Your task to perform on an android device: Set the phone to "Do not disturb". Image 0: 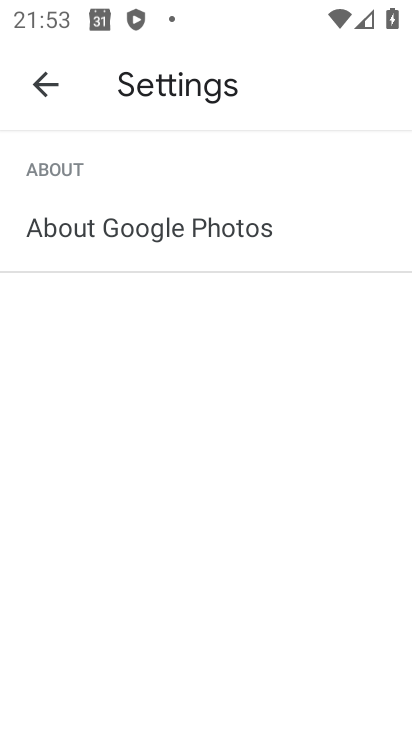
Step 0: press home button
Your task to perform on an android device: Set the phone to "Do not disturb". Image 1: 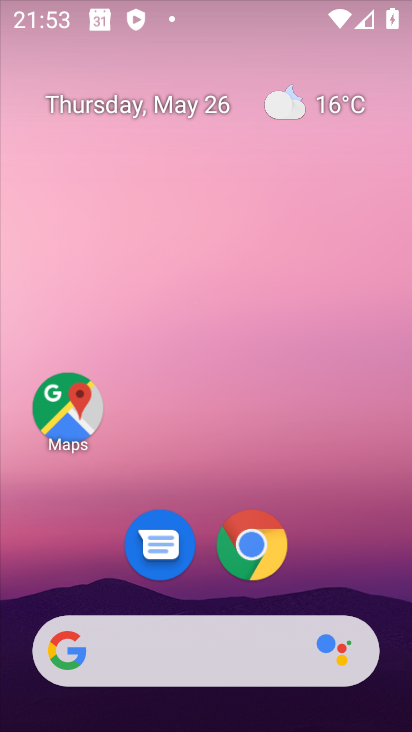
Step 1: drag from (359, 562) to (349, 60)
Your task to perform on an android device: Set the phone to "Do not disturb". Image 2: 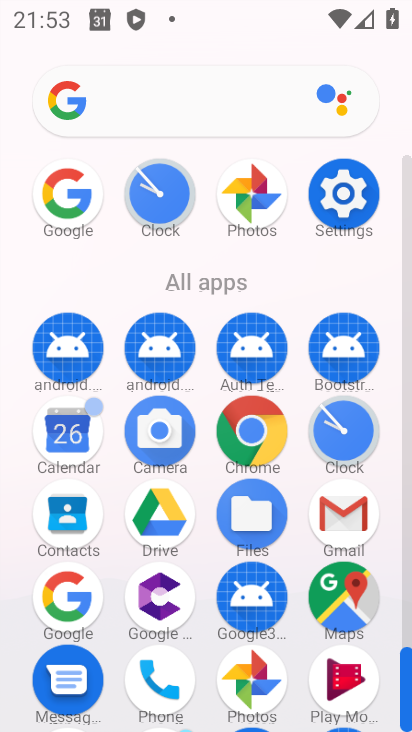
Step 2: click (346, 193)
Your task to perform on an android device: Set the phone to "Do not disturb". Image 3: 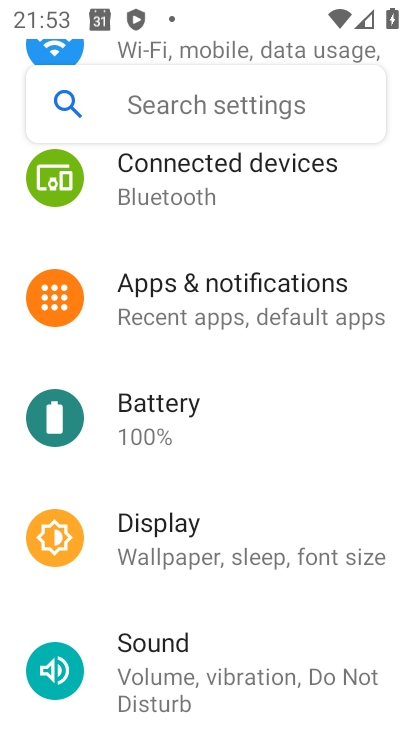
Step 3: click (243, 667)
Your task to perform on an android device: Set the phone to "Do not disturb". Image 4: 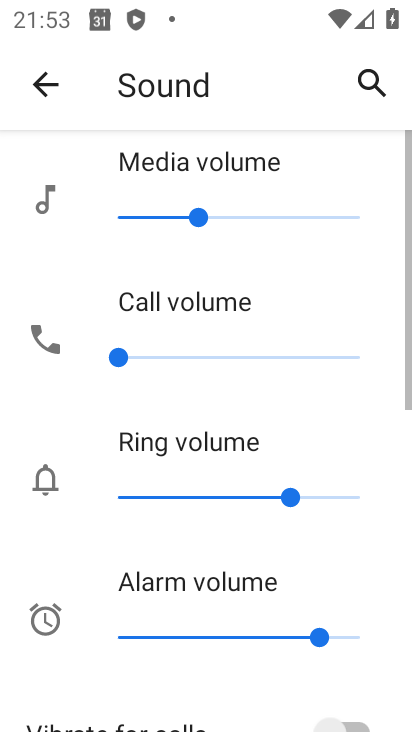
Step 4: drag from (228, 531) to (158, 3)
Your task to perform on an android device: Set the phone to "Do not disturb". Image 5: 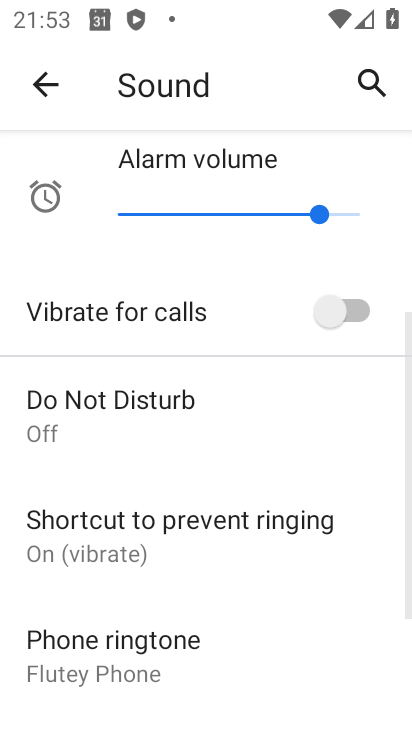
Step 5: click (78, 427)
Your task to perform on an android device: Set the phone to "Do not disturb". Image 6: 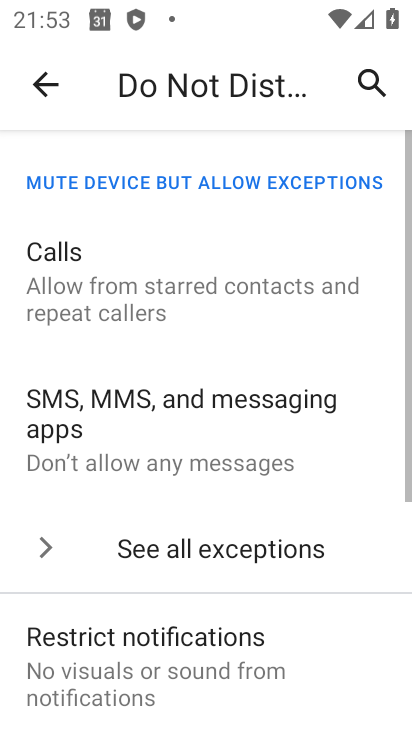
Step 6: drag from (298, 661) to (302, 97)
Your task to perform on an android device: Set the phone to "Do not disturb". Image 7: 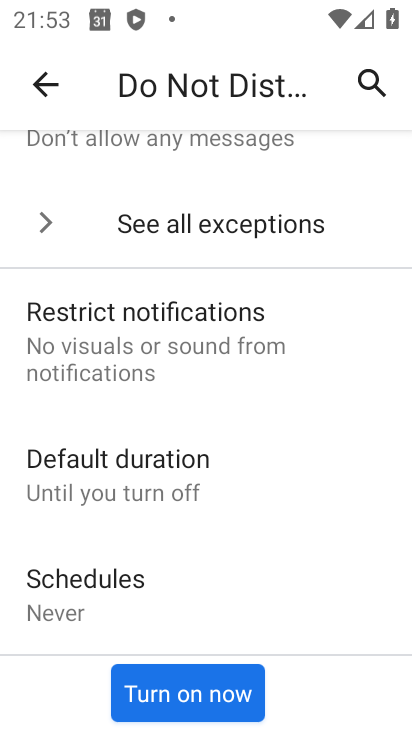
Step 7: click (173, 696)
Your task to perform on an android device: Set the phone to "Do not disturb". Image 8: 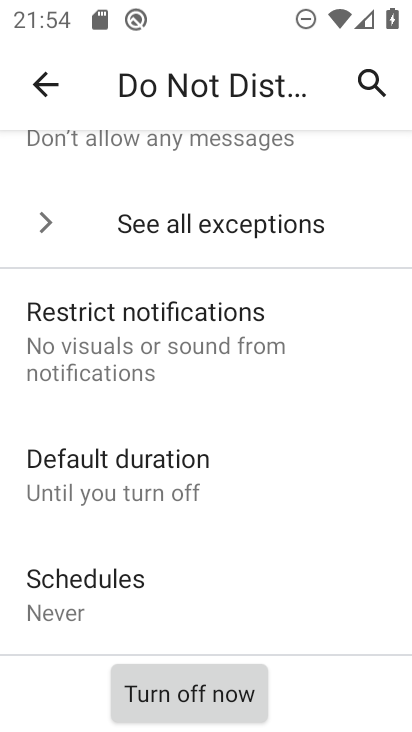
Step 8: task complete